Your task to perform on an android device: Check the weather Image 0: 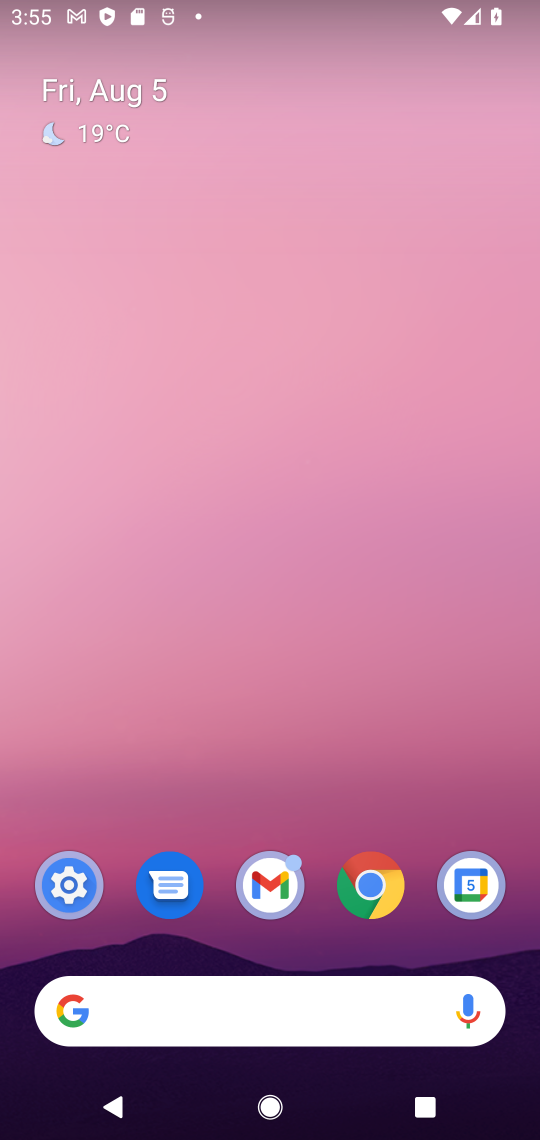
Step 0: drag from (325, 950) to (291, 51)
Your task to perform on an android device: Check the weather Image 1: 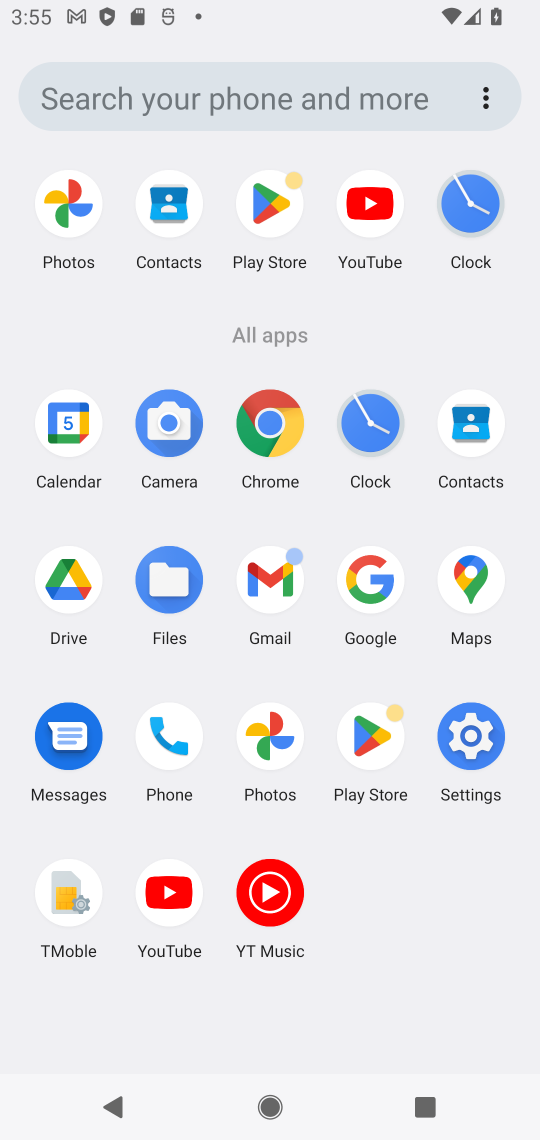
Step 1: click (356, 573)
Your task to perform on an android device: Check the weather Image 2: 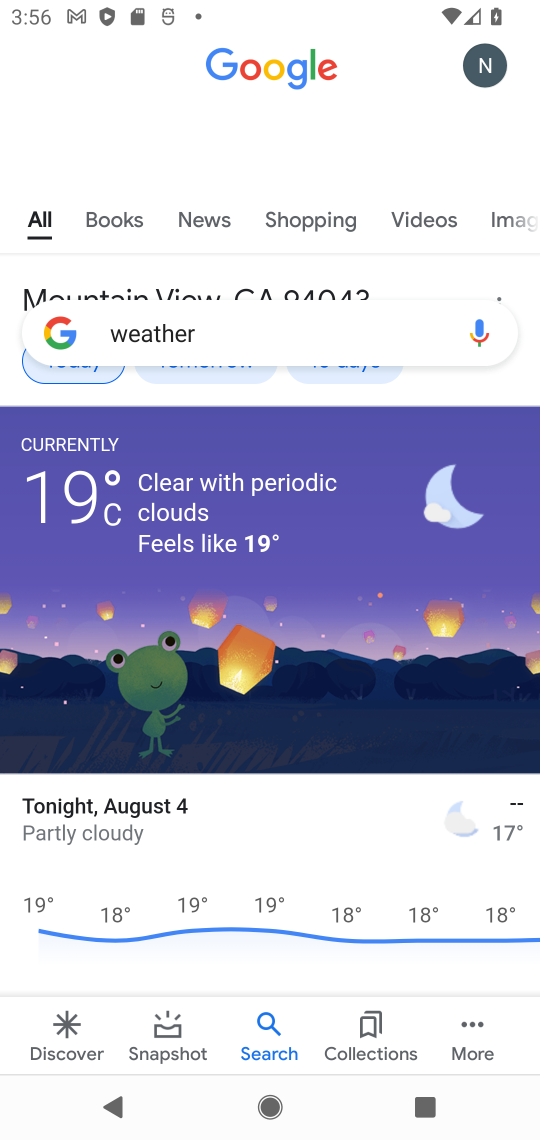
Step 2: click (75, 368)
Your task to perform on an android device: Check the weather Image 3: 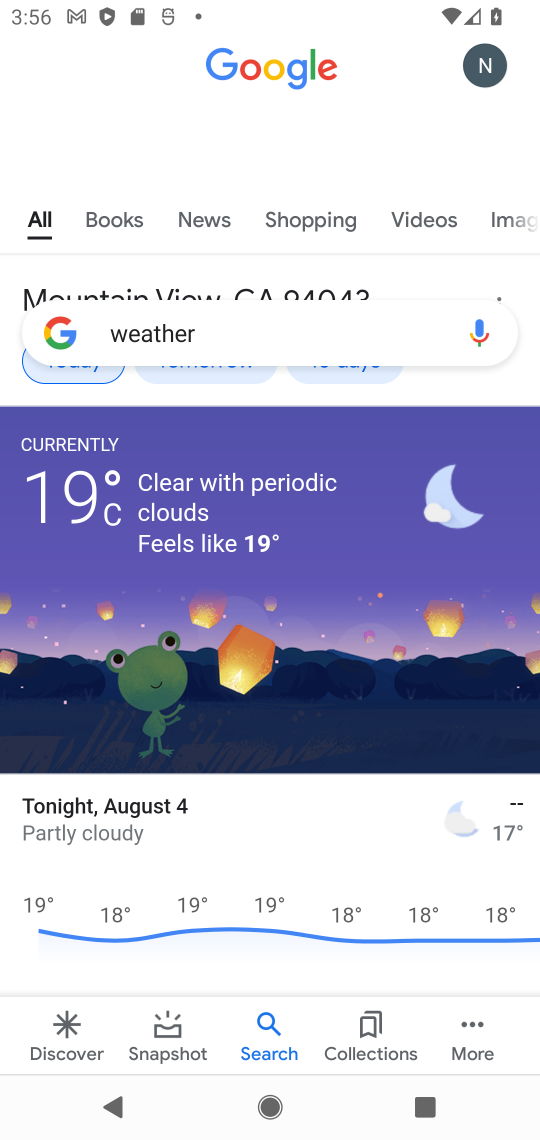
Step 3: drag from (398, 455) to (388, 941)
Your task to perform on an android device: Check the weather Image 4: 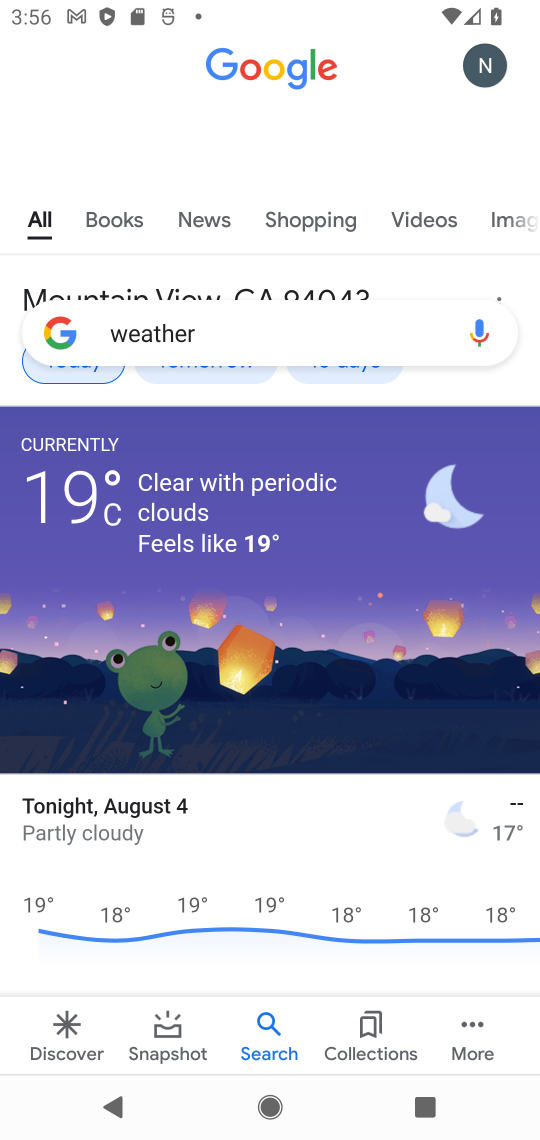
Step 4: click (67, 374)
Your task to perform on an android device: Check the weather Image 5: 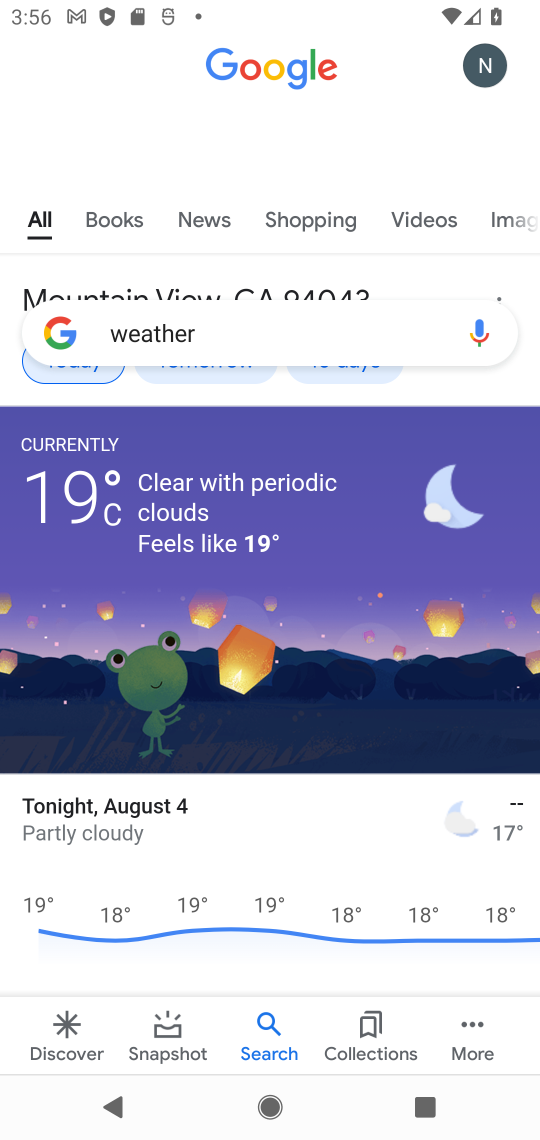
Step 5: task complete